Your task to perform on an android device: Open the Play Movies app and select the watchlist tab. Image 0: 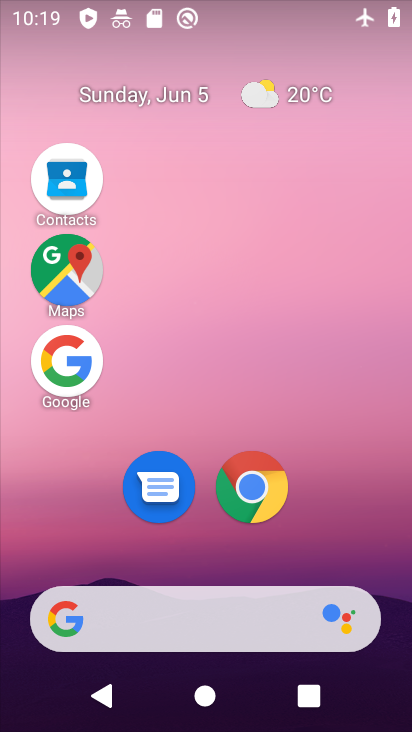
Step 0: drag from (227, 634) to (246, 169)
Your task to perform on an android device: Open the Play Movies app and select the watchlist tab. Image 1: 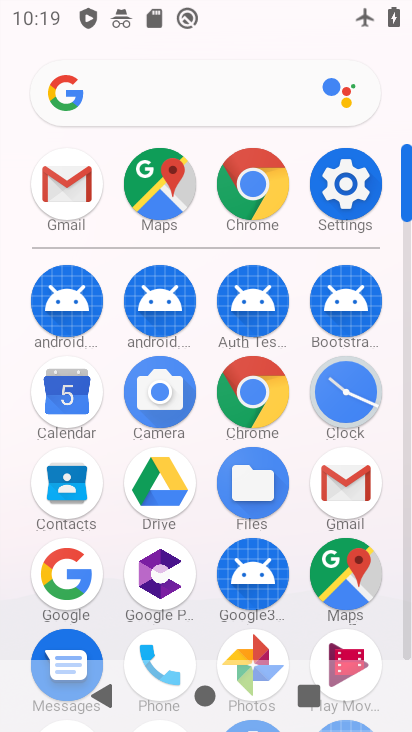
Step 1: drag from (206, 535) to (245, 132)
Your task to perform on an android device: Open the Play Movies app and select the watchlist tab. Image 2: 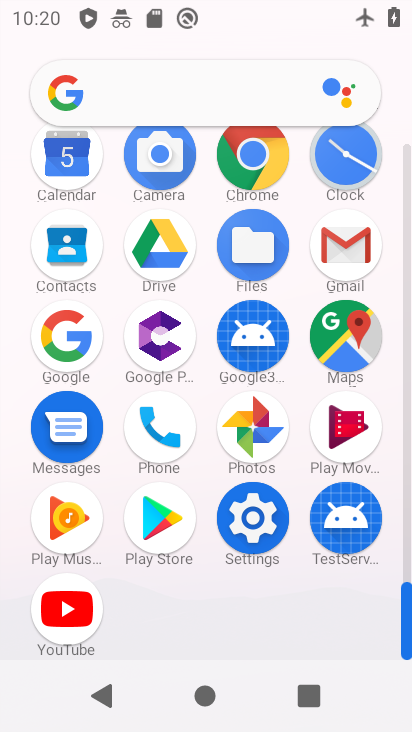
Step 2: click (358, 448)
Your task to perform on an android device: Open the Play Movies app and select the watchlist tab. Image 3: 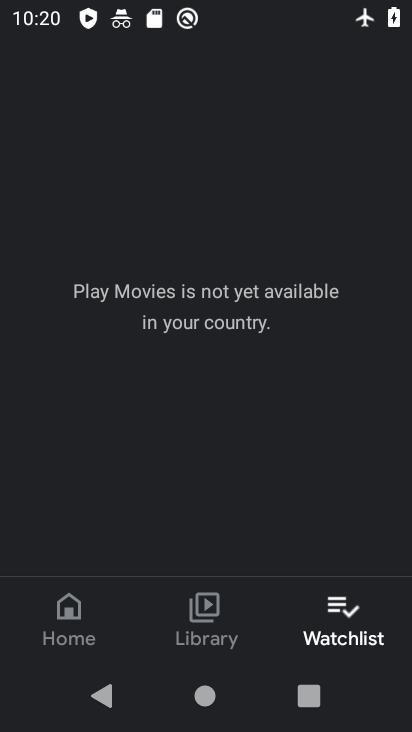
Step 3: click (367, 611)
Your task to perform on an android device: Open the Play Movies app and select the watchlist tab. Image 4: 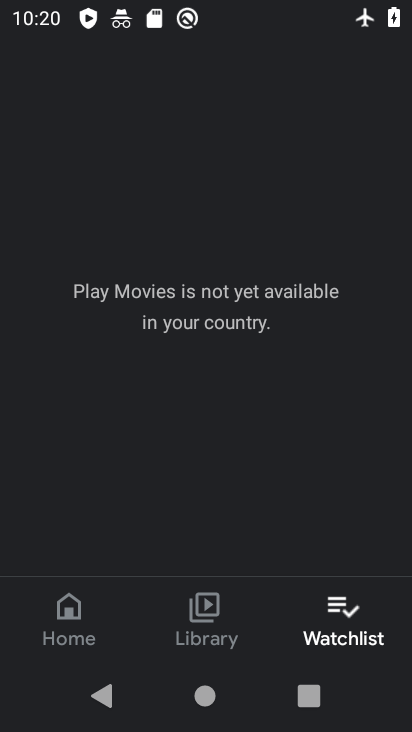
Step 4: task complete